Your task to perform on an android device: toggle notifications settings in the gmail app Image 0: 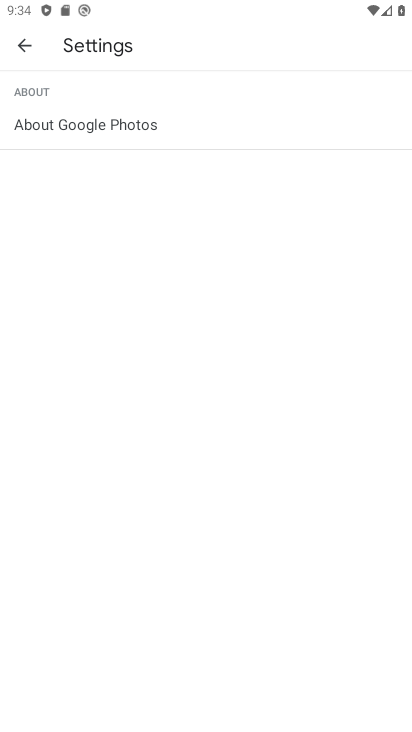
Step 0: press home button
Your task to perform on an android device: toggle notifications settings in the gmail app Image 1: 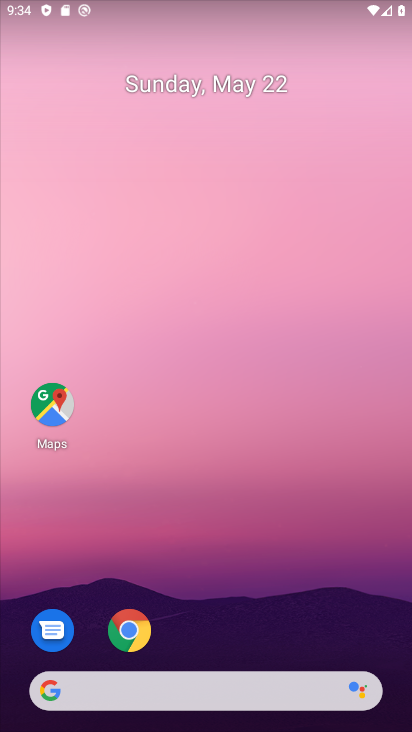
Step 1: drag from (388, 577) to (381, 350)
Your task to perform on an android device: toggle notifications settings in the gmail app Image 2: 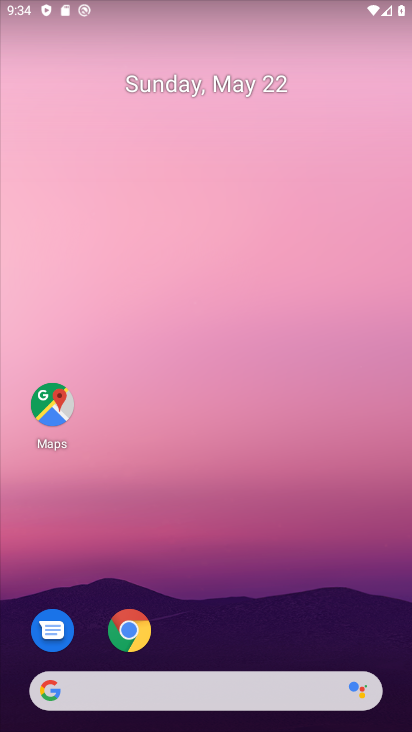
Step 2: drag from (404, 709) to (389, 321)
Your task to perform on an android device: toggle notifications settings in the gmail app Image 3: 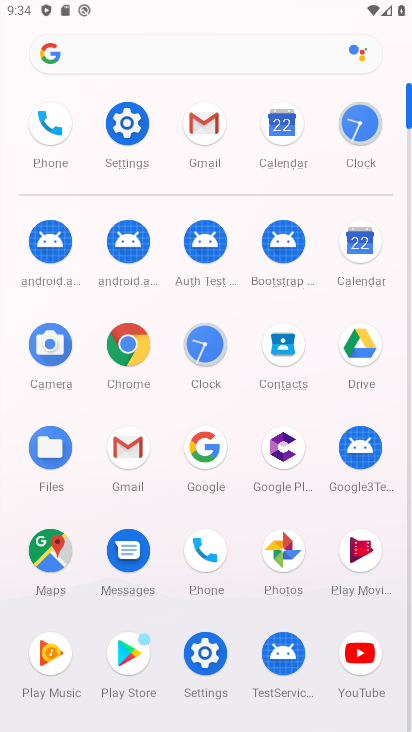
Step 3: click (197, 125)
Your task to perform on an android device: toggle notifications settings in the gmail app Image 4: 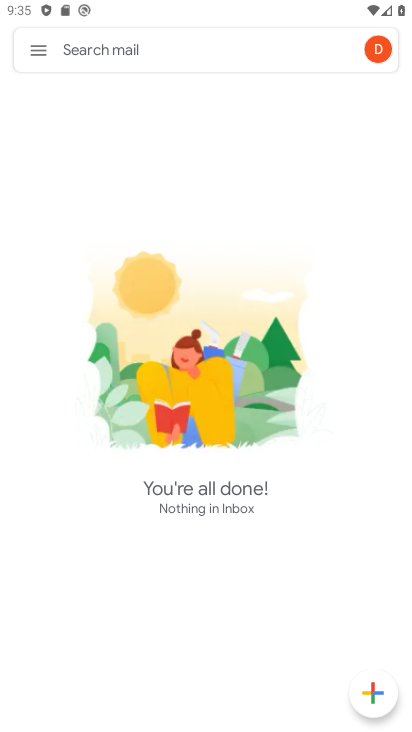
Step 4: click (34, 44)
Your task to perform on an android device: toggle notifications settings in the gmail app Image 5: 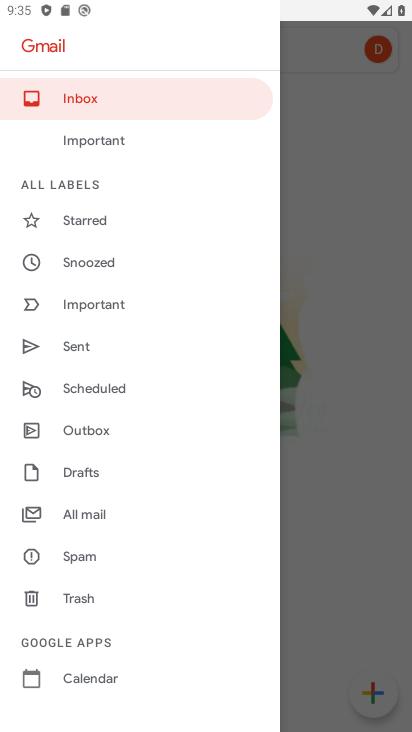
Step 5: drag from (219, 659) to (204, 177)
Your task to perform on an android device: toggle notifications settings in the gmail app Image 6: 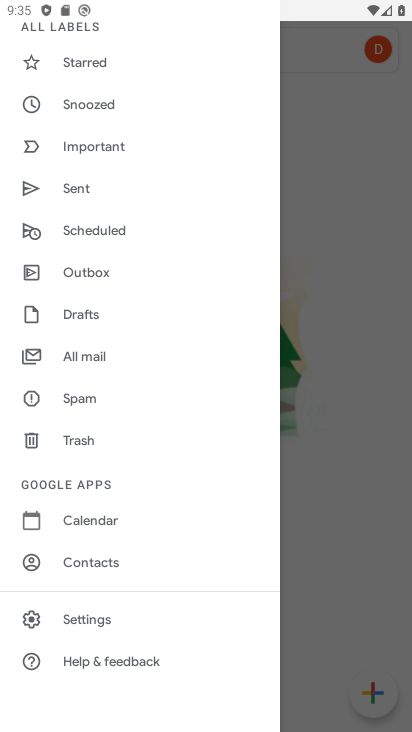
Step 6: click (68, 612)
Your task to perform on an android device: toggle notifications settings in the gmail app Image 7: 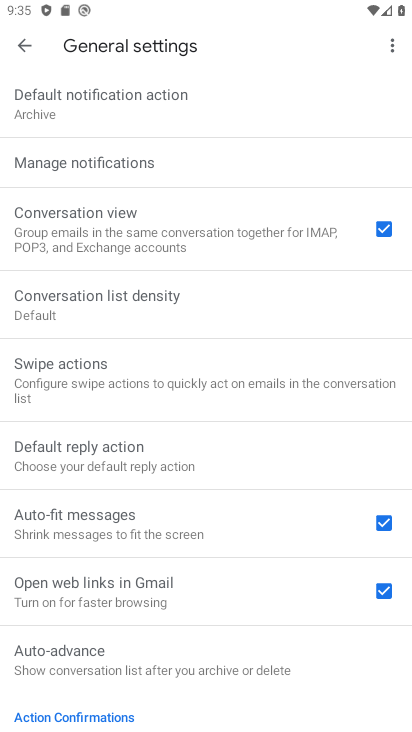
Step 7: click (72, 158)
Your task to perform on an android device: toggle notifications settings in the gmail app Image 8: 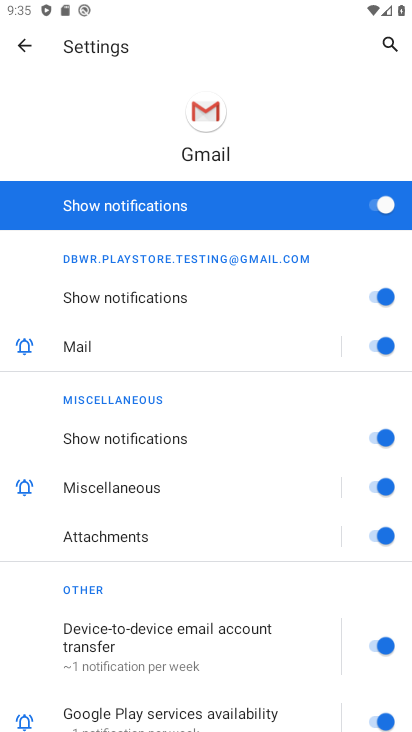
Step 8: click (370, 204)
Your task to perform on an android device: toggle notifications settings in the gmail app Image 9: 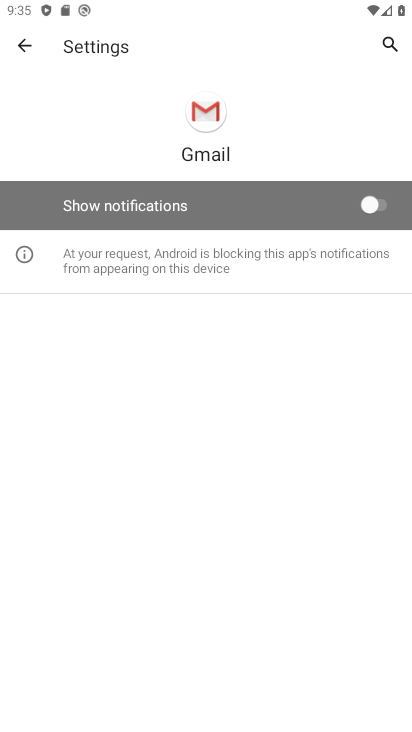
Step 9: task complete